Your task to perform on an android device: create a new album in the google photos Image 0: 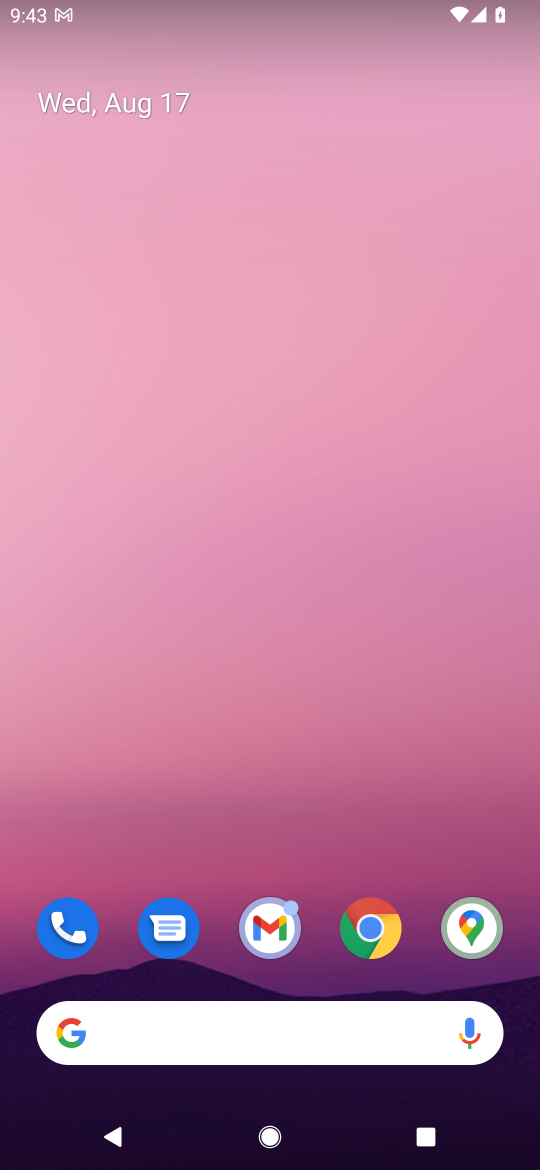
Step 0: drag from (346, 836) to (328, 266)
Your task to perform on an android device: create a new album in the google photos Image 1: 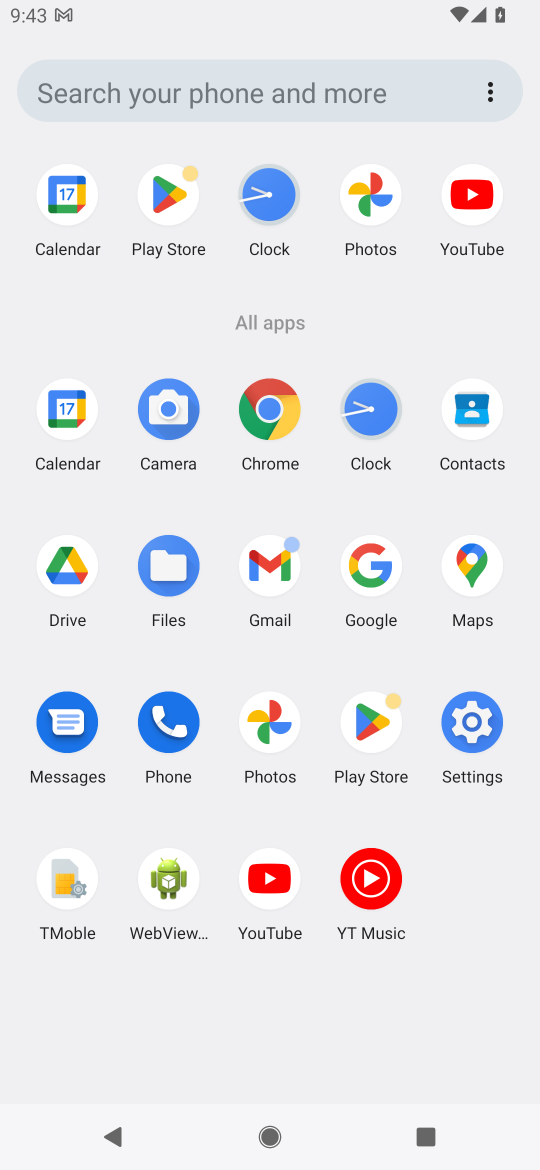
Step 1: click (246, 727)
Your task to perform on an android device: create a new album in the google photos Image 2: 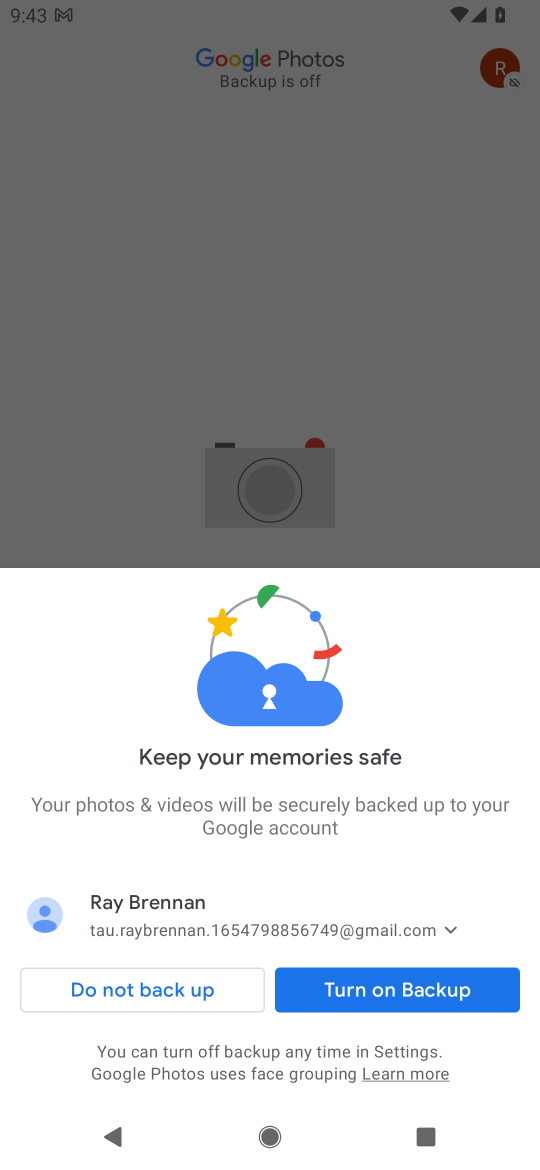
Step 2: click (211, 985)
Your task to perform on an android device: create a new album in the google photos Image 3: 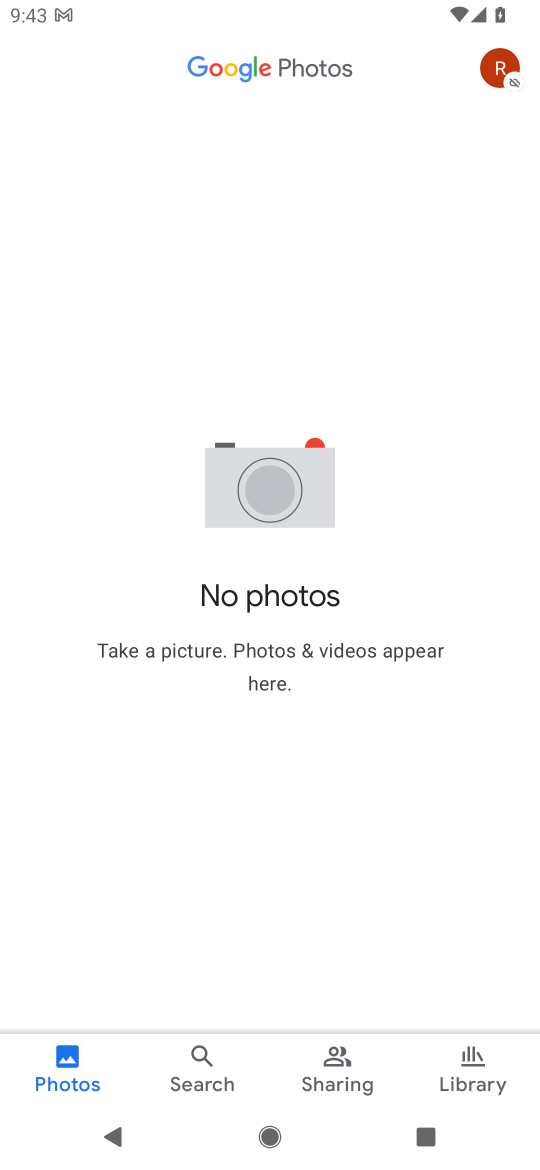
Step 3: click (450, 1052)
Your task to perform on an android device: create a new album in the google photos Image 4: 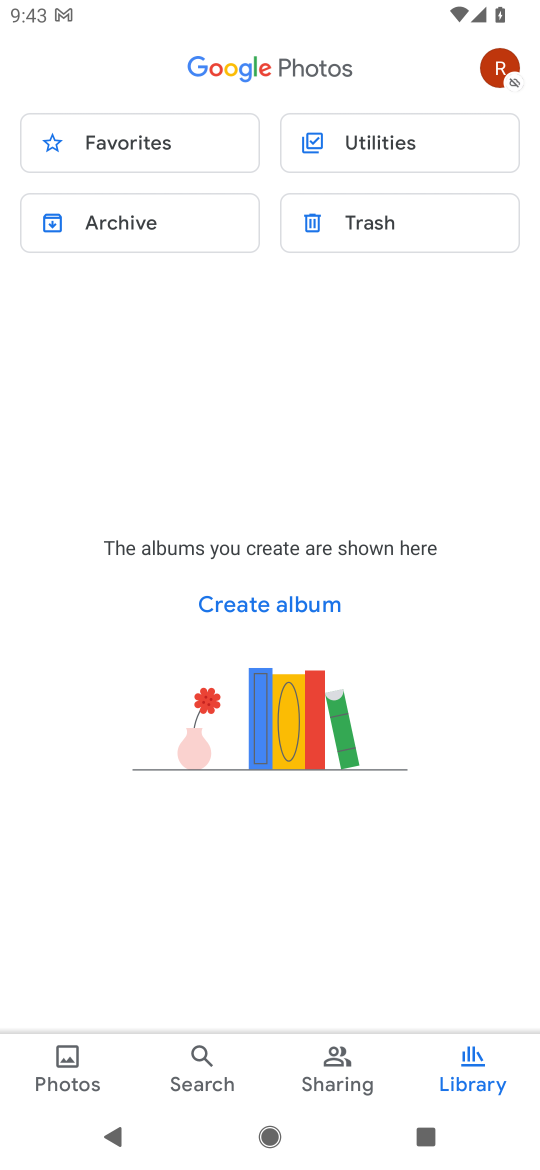
Step 4: task complete